Your task to perform on an android device: turn off notifications settings in the gmail app Image 0: 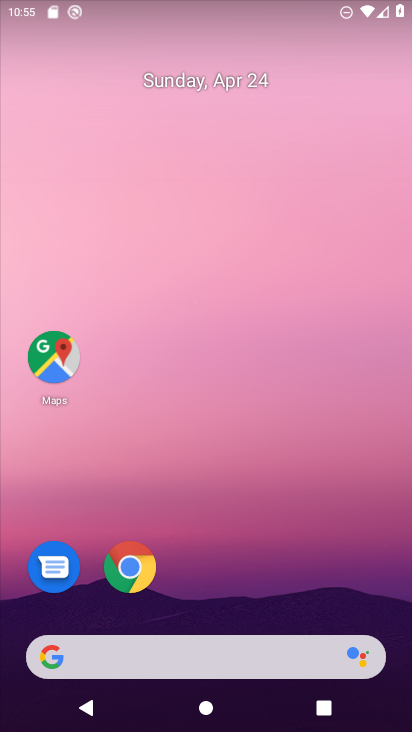
Step 0: drag from (327, 655) to (334, 136)
Your task to perform on an android device: turn off notifications settings in the gmail app Image 1: 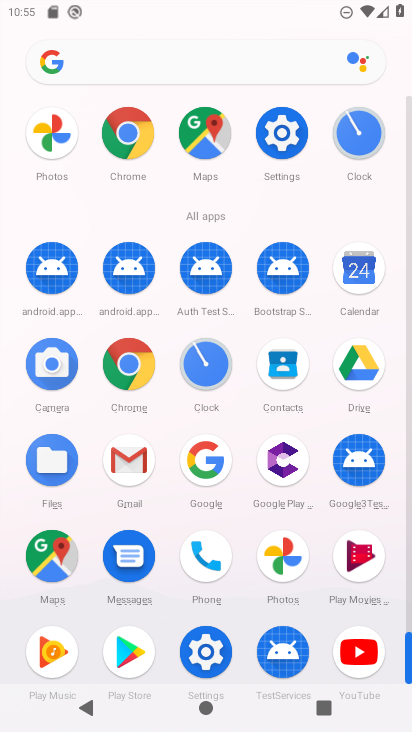
Step 1: click (124, 467)
Your task to perform on an android device: turn off notifications settings in the gmail app Image 2: 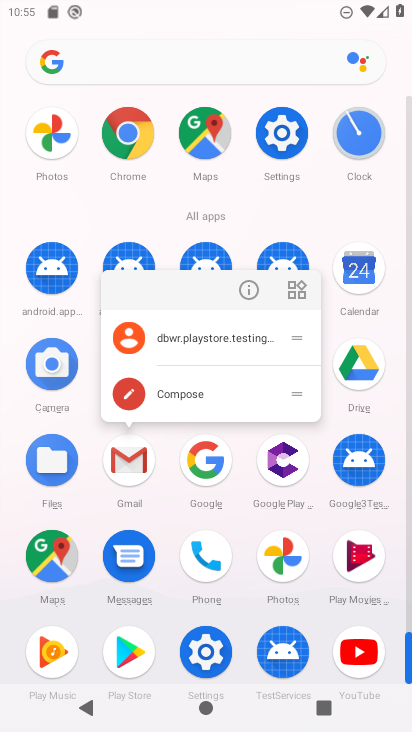
Step 2: click (139, 469)
Your task to perform on an android device: turn off notifications settings in the gmail app Image 3: 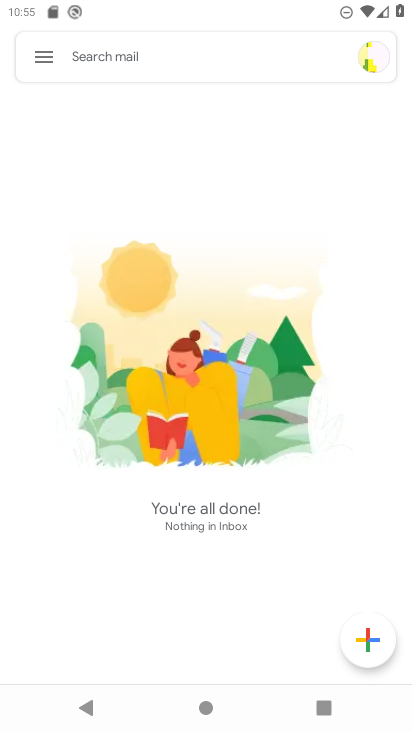
Step 3: click (38, 57)
Your task to perform on an android device: turn off notifications settings in the gmail app Image 4: 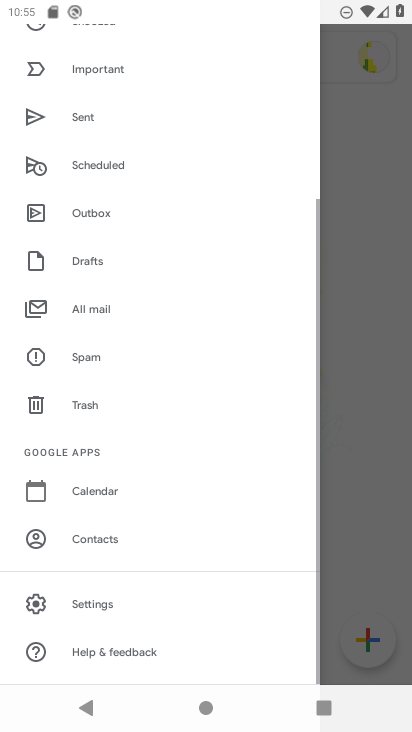
Step 4: drag from (188, 400) to (210, 102)
Your task to perform on an android device: turn off notifications settings in the gmail app Image 5: 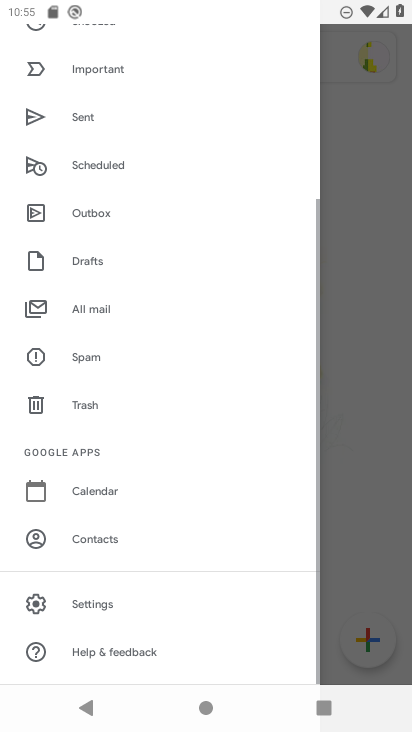
Step 5: click (148, 601)
Your task to perform on an android device: turn off notifications settings in the gmail app Image 6: 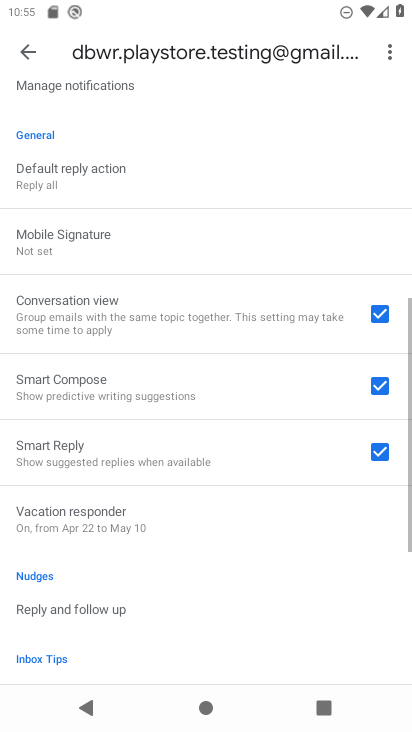
Step 6: drag from (148, 601) to (149, 130)
Your task to perform on an android device: turn off notifications settings in the gmail app Image 7: 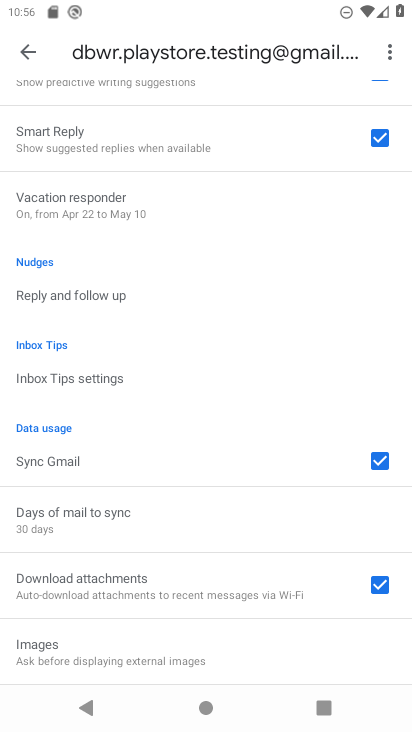
Step 7: drag from (150, 582) to (154, 268)
Your task to perform on an android device: turn off notifications settings in the gmail app Image 8: 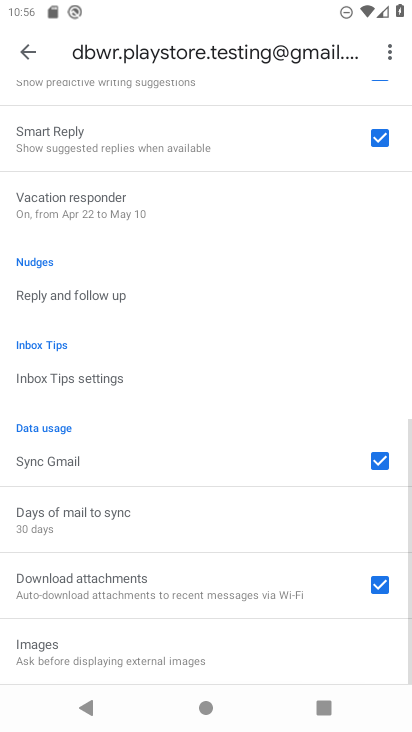
Step 8: drag from (173, 365) to (185, 593)
Your task to perform on an android device: turn off notifications settings in the gmail app Image 9: 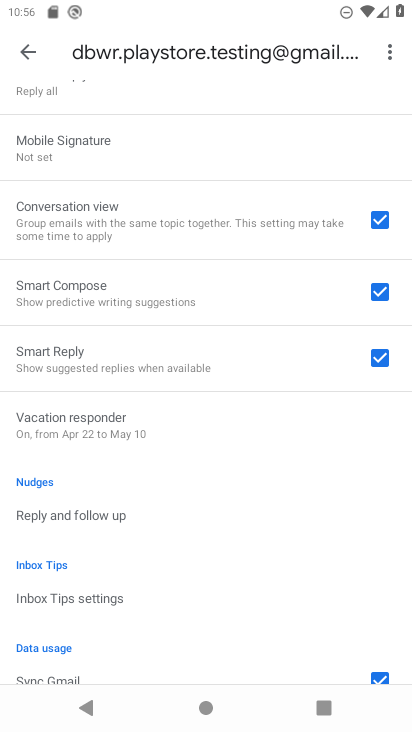
Step 9: drag from (184, 358) to (191, 731)
Your task to perform on an android device: turn off notifications settings in the gmail app Image 10: 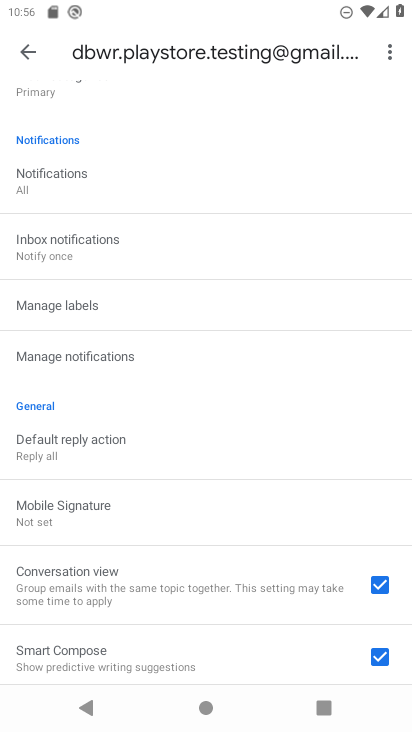
Step 10: click (113, 203)
Your task to perform on an android device: turn off notifications settings in the gmail app Image 11: 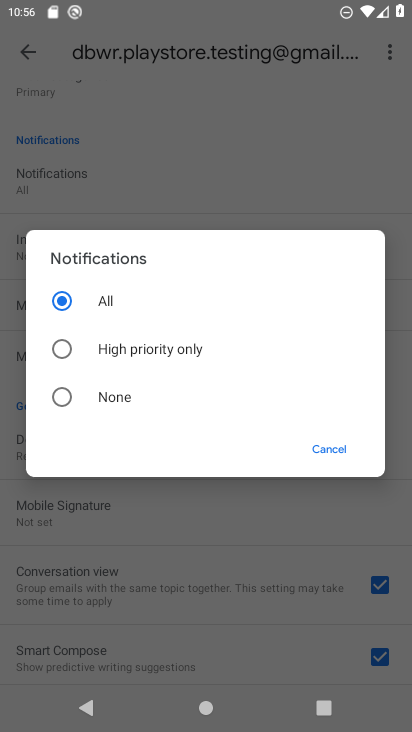
Step 11: click (341, 449)
Your task to perform on an android device: turn off notifications settings in the gmail app Image 12: 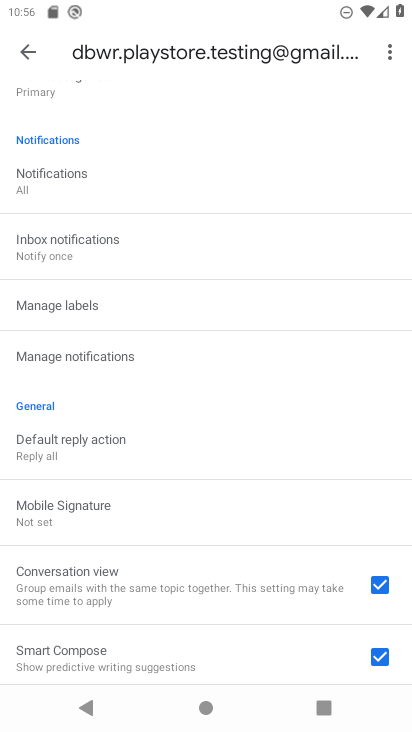
Step 12: drag from (283, 275) to (284, 667)
Your task to perform on an android device: turn off notifications settings in the gmail app Image 13: 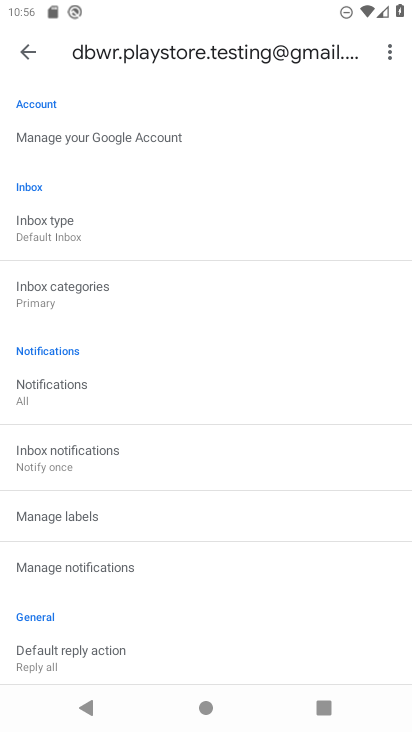
Step 13: click (89, 586)
Your task to perform on an android device: turn off notifications settings in the gmail app Image 14: 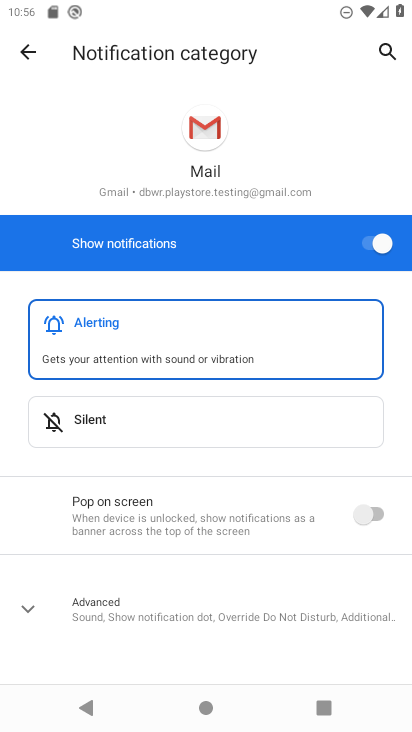
Step 14: click (371, 246)
Your task to perform on an android device: turn off notifications settings in the gmail app Image 15: 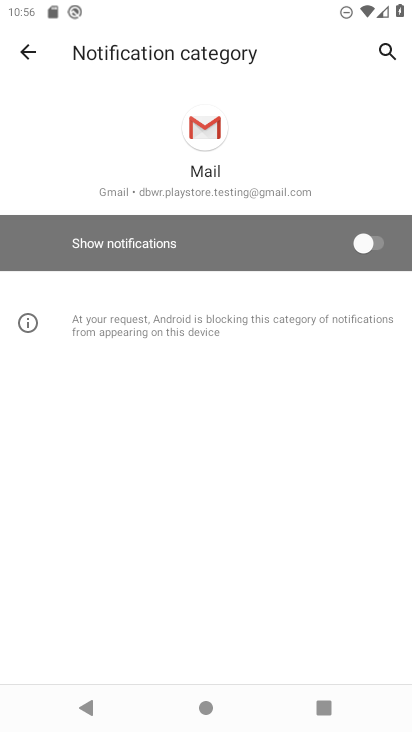
Step 15: task complete